Your task to perform on an android device: Open notification settings Image 0: 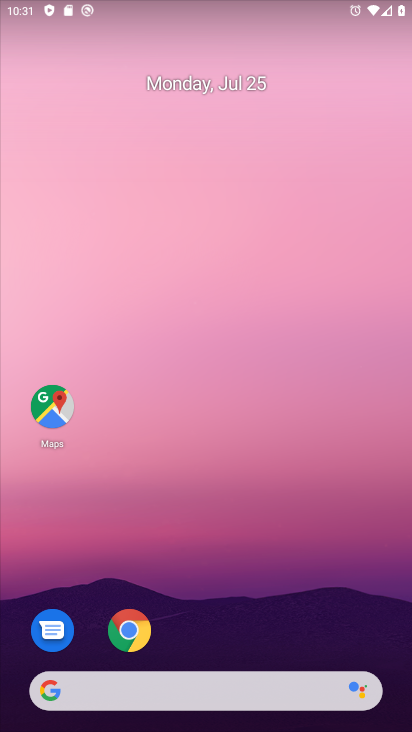
Step 0: drag from (227, 684) to (174, 271)
Your task to perform on an android device: Open notification settings Image 1: 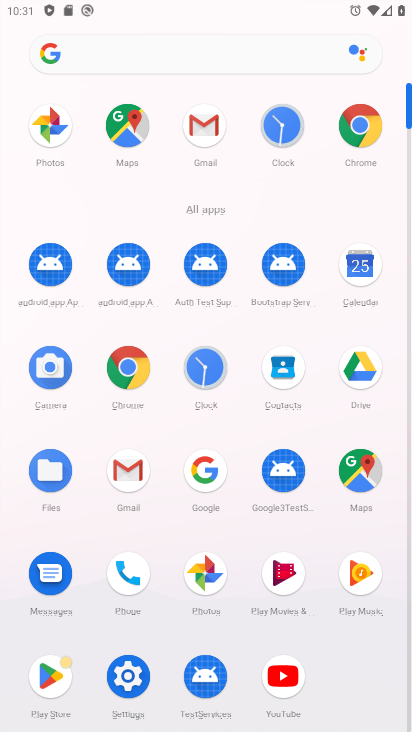
Step 1: click (138, 664)
Your task to perform on an android device: Open notification settings Image 2: 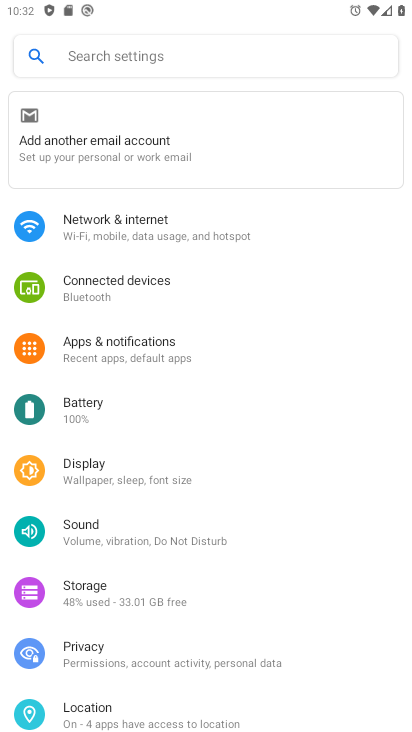
Step 2: click (139, 336)
Your task to perform on an android device: Open notification settings Image 3: 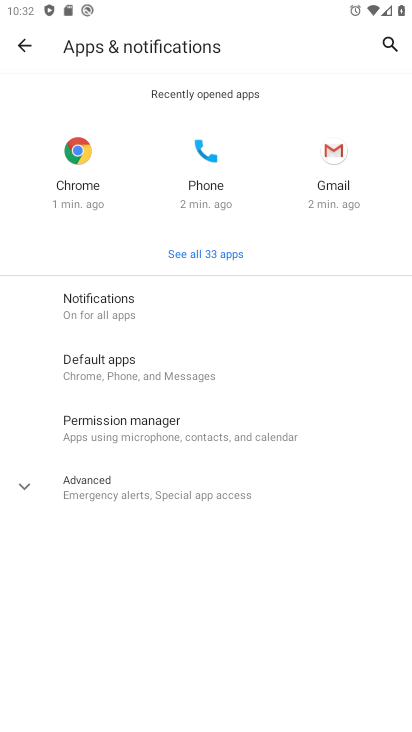
Step 3: task complete